Your task to perform on an android device: snooze an email in the gmail app Image 0: 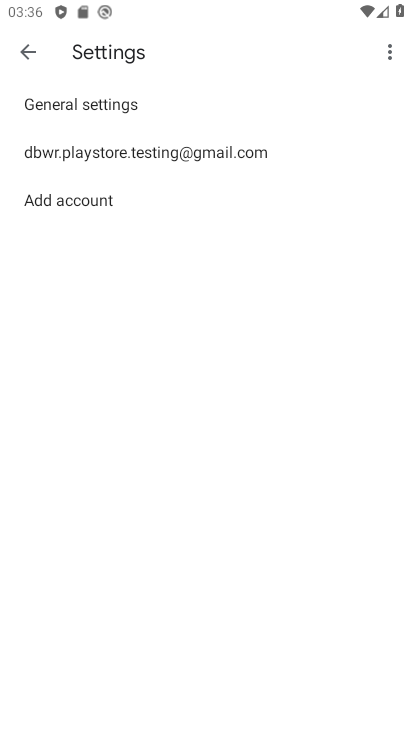
Step 0: press home button
Your task to perform on an android device: snooze an email in the gmail app Image 1: 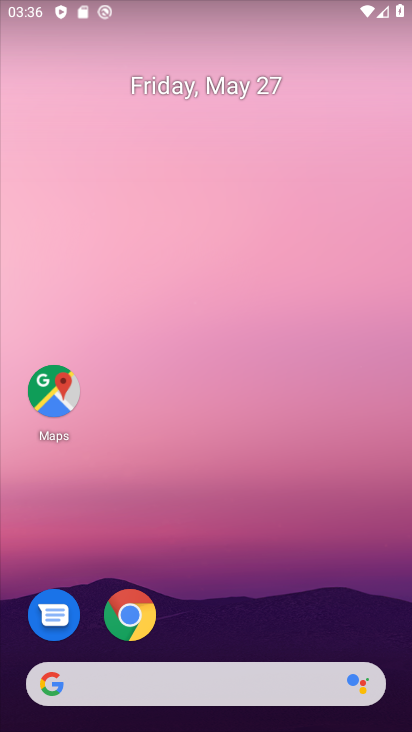
Step 1: drag from (110, 722) to (156, 167)
Your task to perform on an android device: snooze an email in the gmail app Image 2: 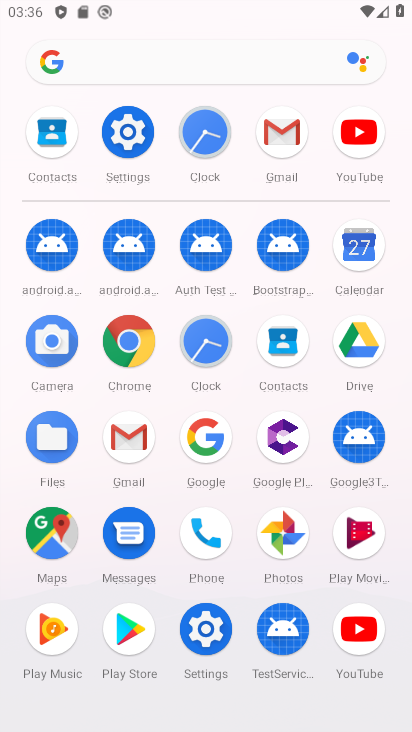
Step 2: click (127, 437)
Your task to perform on an android device: snooze an email in the gmail app Image 3: 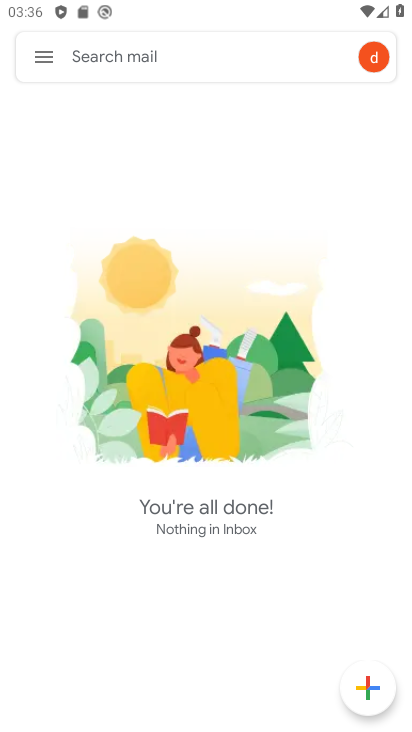
Step 3: click (41, 69)
Your task to perform on an android device: snooze an email in the gmail app Image 4: 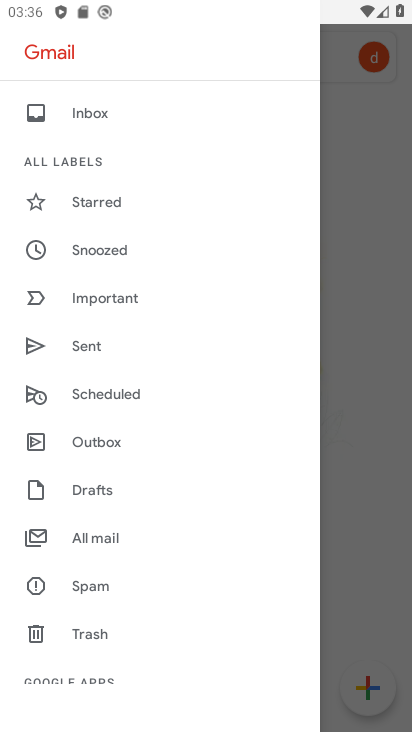
Step 4: drag from (192, 632) to (149, 195)
Your task to perform on an android device: snooze an email in the gmail app Image 5: 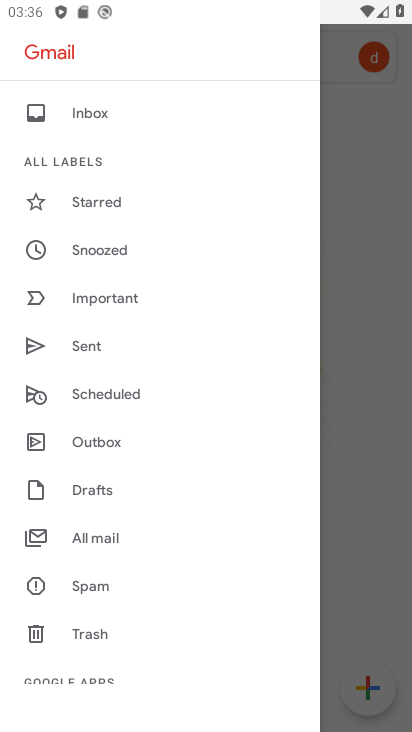
Step 5: click (105, 542)
Your task to perform on an android device: snooze an email in the gmail app Image 6: 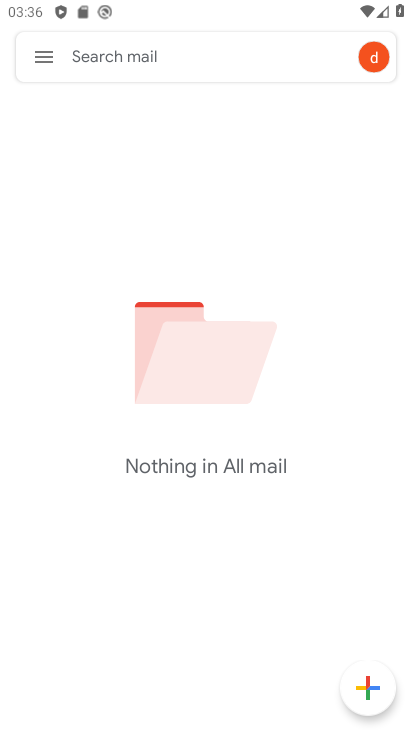
Step 6: click (55, 47)
Your task to perform on an android device: snooze an email in the gmail app Image 7: 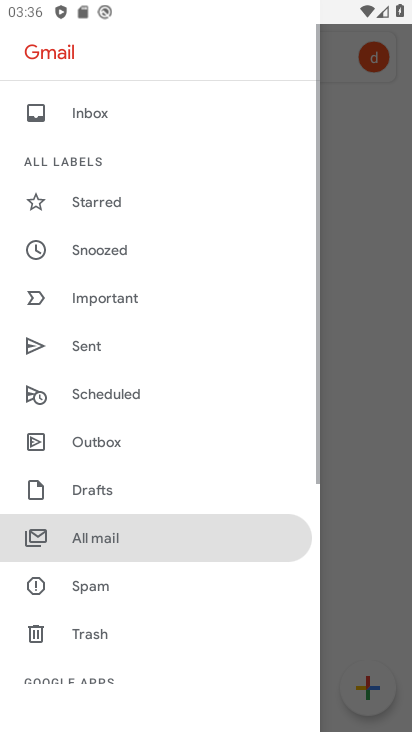
Step 7: drag from (164, 145) to (168, 653)
Your task to perform on an android device: snooze an email in the gmail app Image 8: 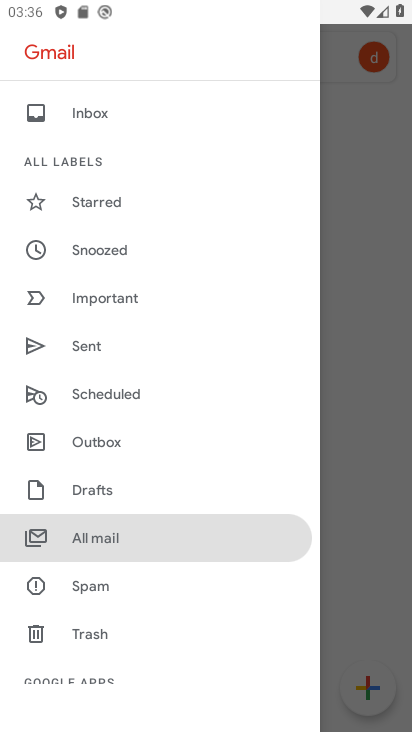
Step 8: click (86, 108)
Your task to perform on an android device: snooze an email in the gmail app Image 9: 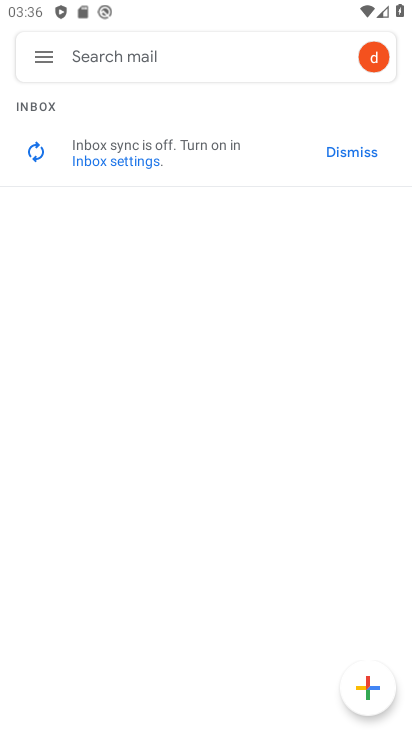
Step 9: task complete